Your task to perform on an android device: Open calendar and show me the fourth week of next month Image 0: 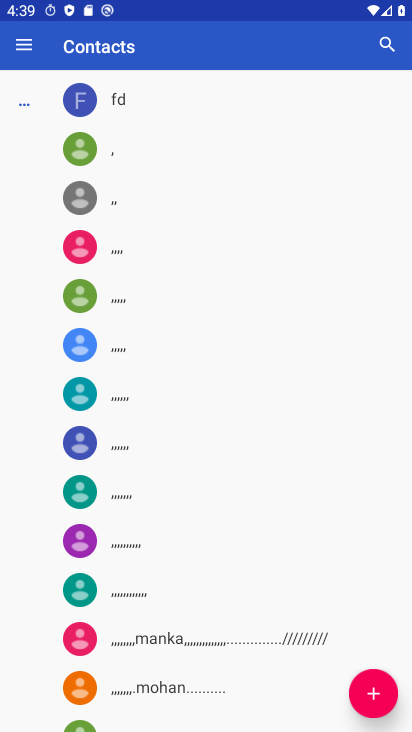
Step 0: press home button
Your task to perform on an android device: Open calendar and show me the fourth week of next month Image 1: 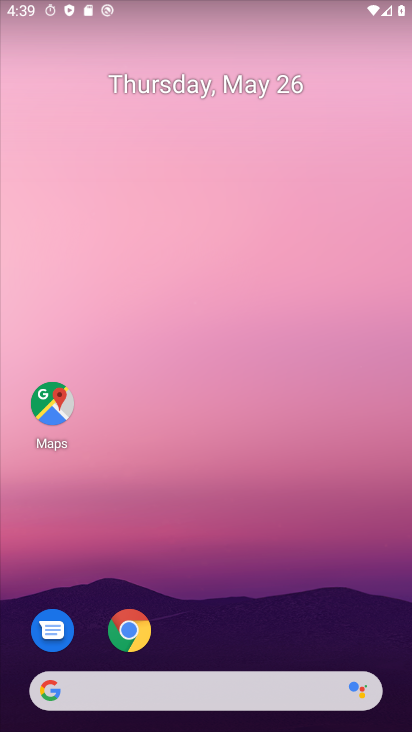
Step 1: drag from (263, 666) to (305, 139)
Your task to perform on an android device: Open calendar and show me the fourth week of next month Image 2: 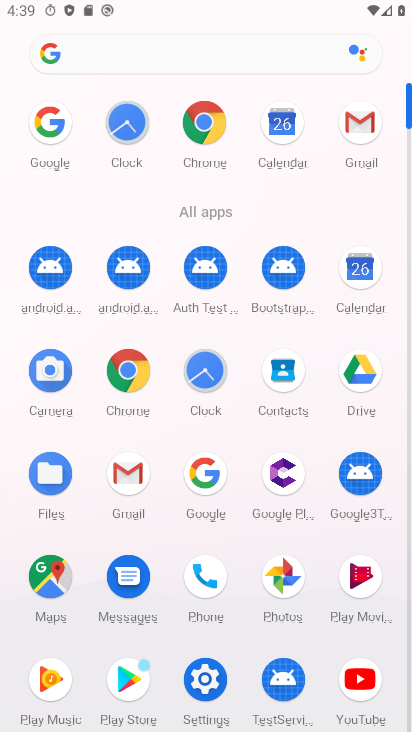
Step 2: click (355, 272)
Your task to perform on an android device: Open calendar and show me the fourth week of next month Image 3: 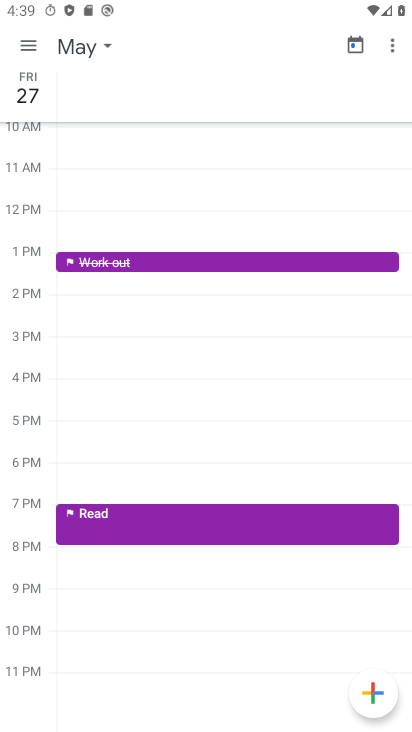
Step 3: click (78, 50)
Your task to perform on an android device: Open calendar and show me the fourth week of next month Image 4: 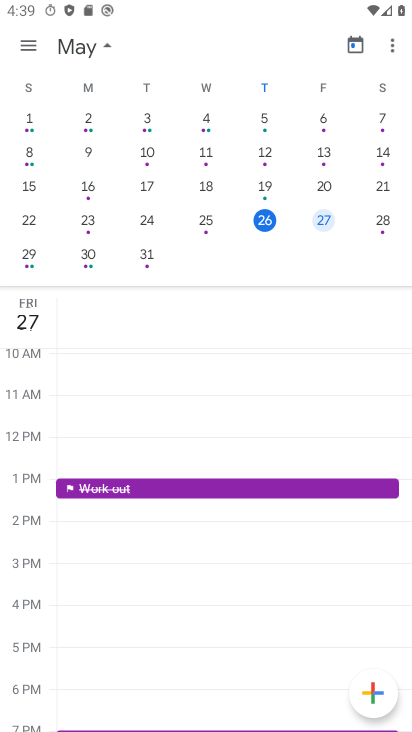
Step 4: drag from (351, 199) to (11, 136)
Your task to perform on an android device: Open calendar and show me the fourth week of next month Image 5: 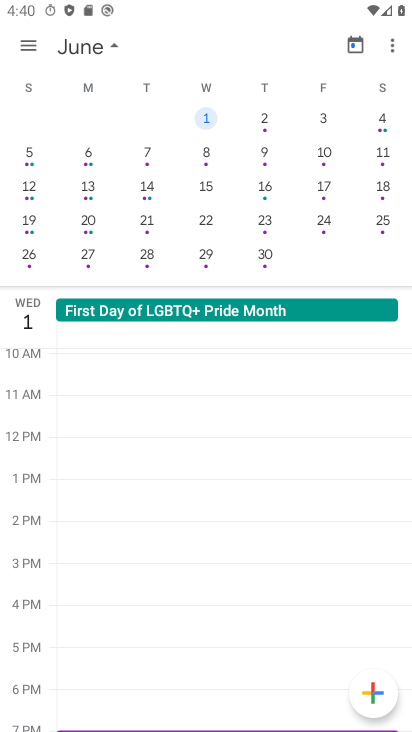
Step 5: click (28, 216)
Your task to perform on an android device: Open calendar and show me the fourth week of next month Image 6: 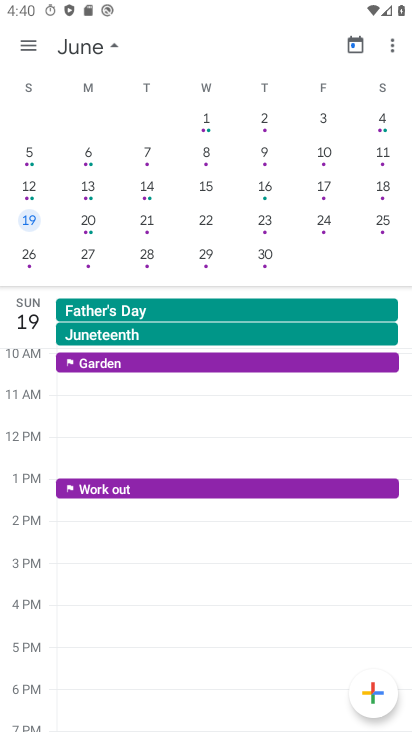
Step 6: task complete